Your task to perform on an android device: move a message to another label in the gmail app Image 0: 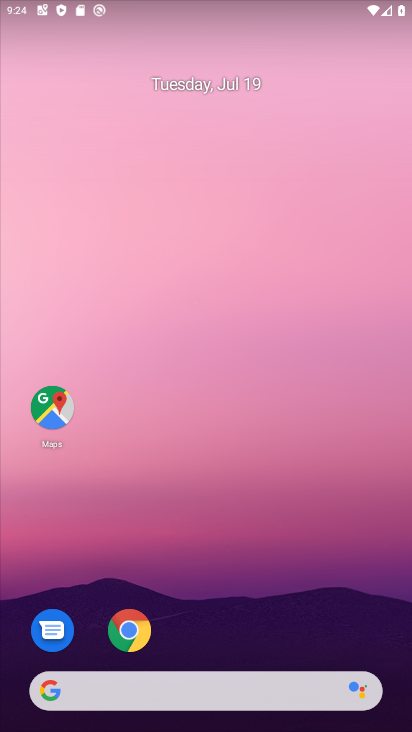
Step 0: drag from (187, 702) to (209, 24)
Your task to perform on an android device: move a message to another label in the gmail app Image 1: 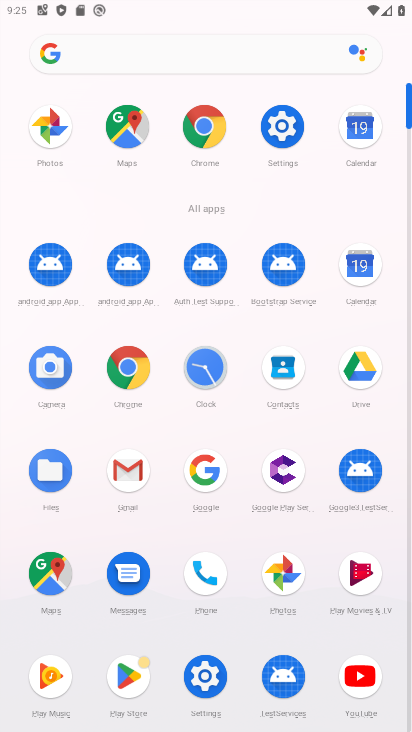
Step 1: click (130, 480)
Your task to perform on an android device: move a message to another label in the gmail app Image 2: 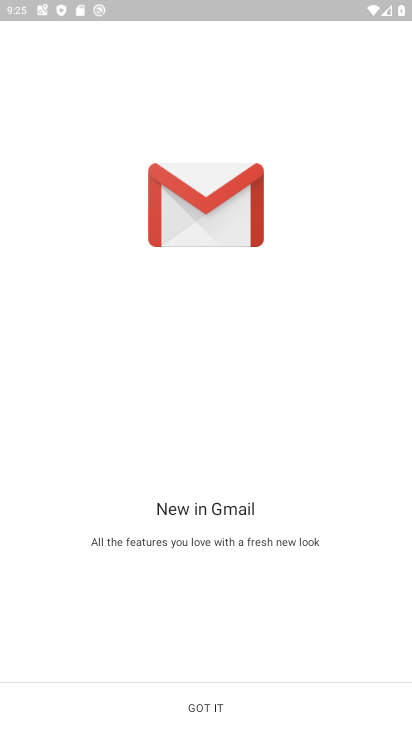
Step 2: click (223, 715)
Your task to perform on an android device: move a message to another label in the gmail app Image 3: 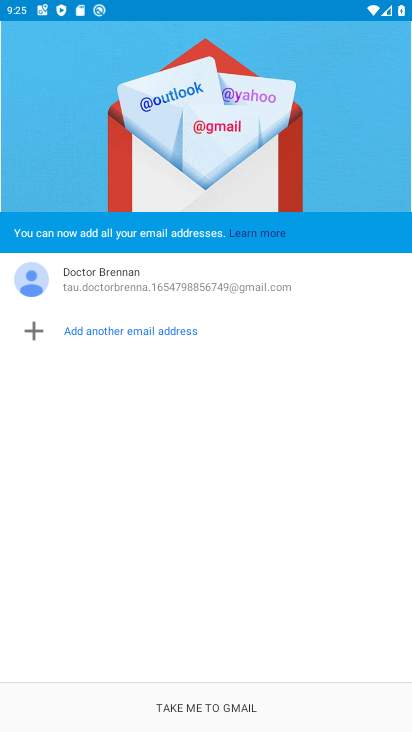
Step 3: click (233, 695)
Your task to perform on an android device: move a message to another label in the gmail app Image 4: 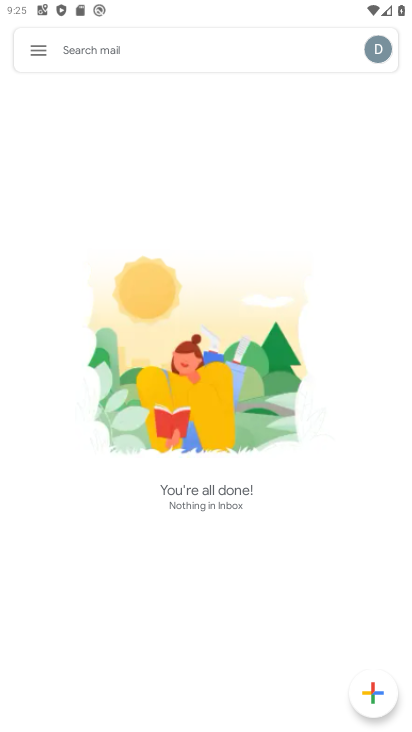
Step 4: click (41, 53)
Your task to perform on an android device: move a message to another label in the gmail app Image 5: 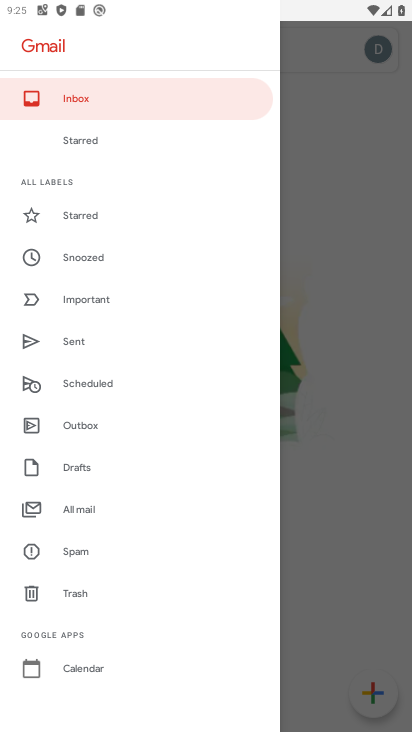
Step 5: click (77, 511)
Your task to perform on an android device: move a message to another label in the gmail app Image 6: 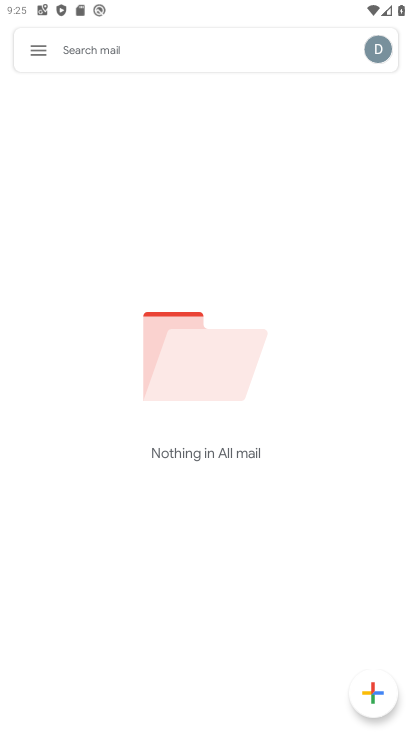
Step 6: task complete